Your task to perform on an android device: Open Yahoo.com Image 0: 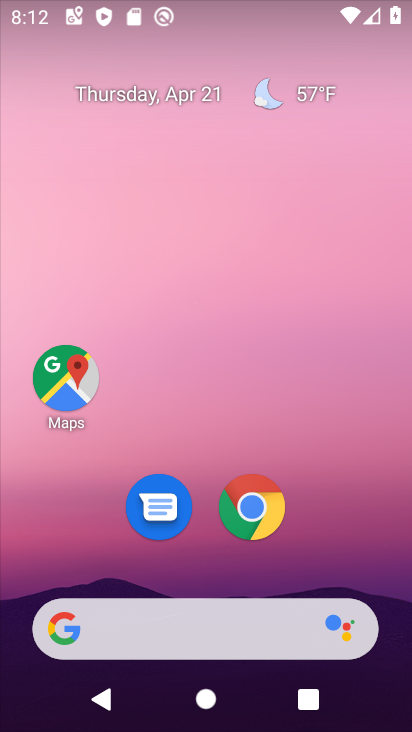
Step 0: click (261, 519)
Your task to perform on an android device: Open Yahoo.com Image 1: 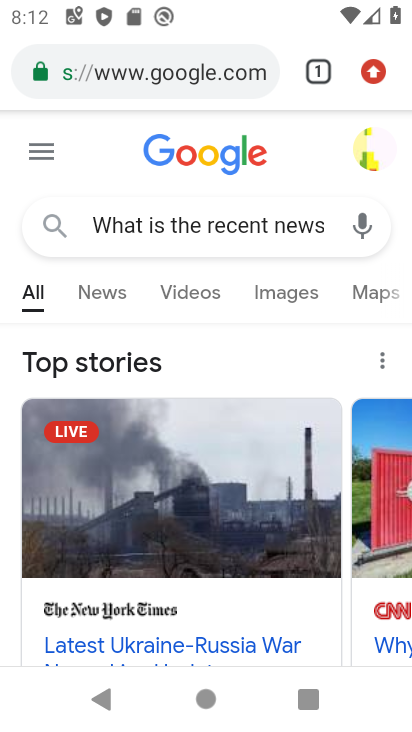
Step 1: drag from (366, 74) to (149, 228)
Your task to perform on an android device: Open Yahoo.com Image 2: 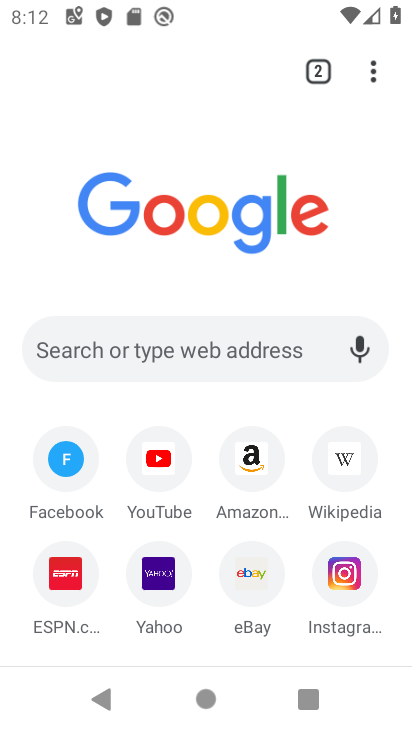
Step 2: click (168, 578)
Your task to perform on an android device: Open Yahoo.com Image 3: 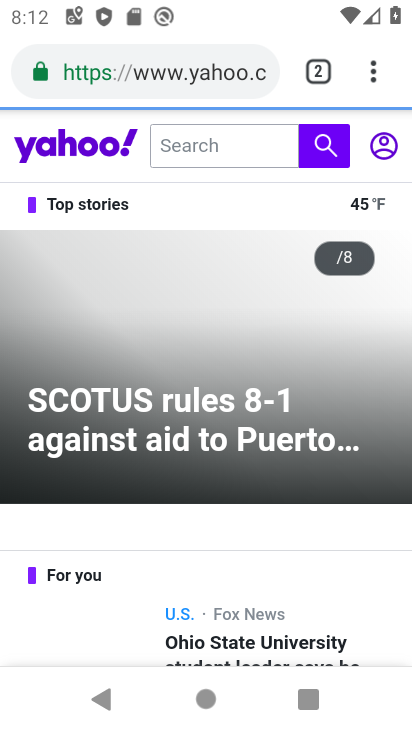
Step 3: task complete